Your task to perform on an android device: change the clock display to show seconds Image 0: 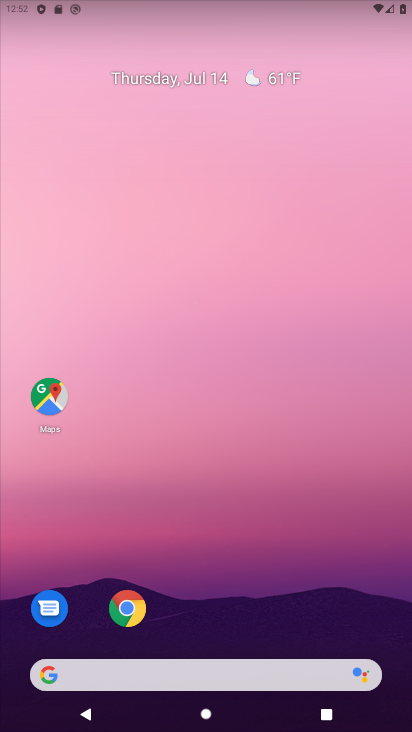
Step 0: drag from (327, 607) to (332, 140)
Your task to perform on an android device: change the clock display to show seconds Image 1: 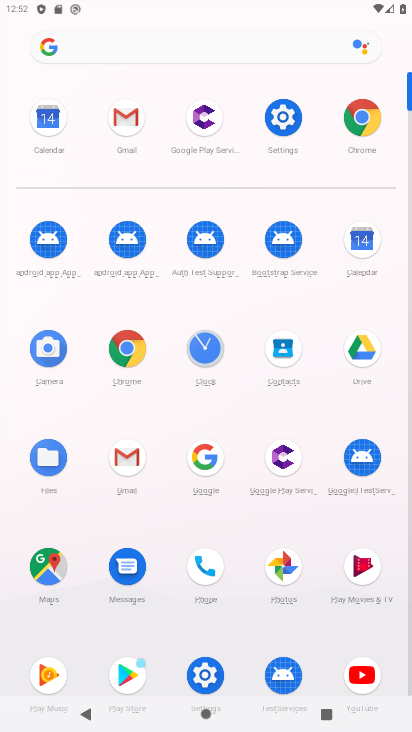
Step 1: click (204, 352)
Your task to perform on an android device: change the clock display to show seconds Image 2: 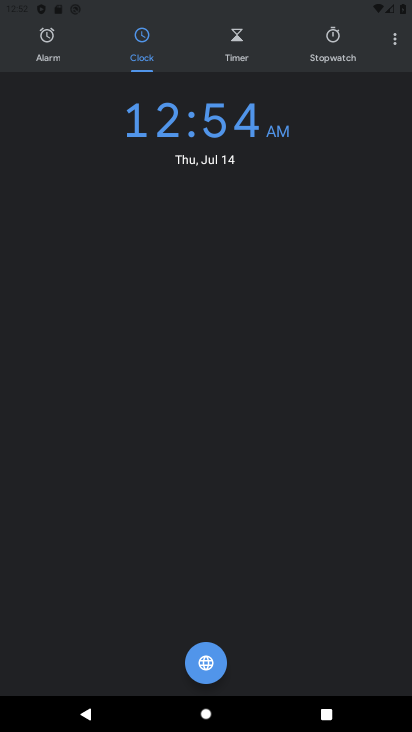
Step 2: click (395, 38)
Your task to perform on an android device: change the clock display to show seconds Image 3: 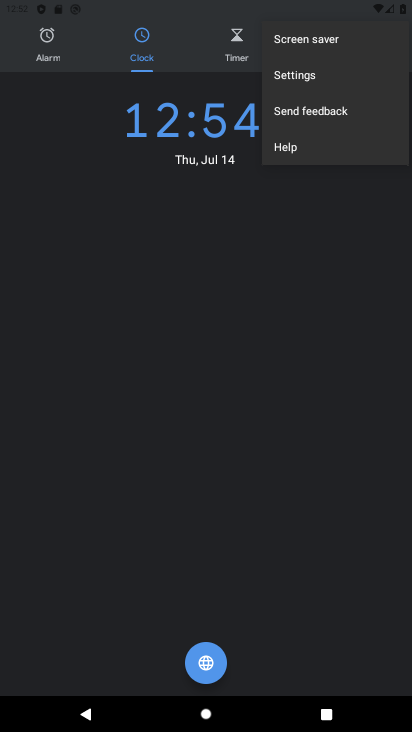
Step 3: click (308, 79)
Your task to perform on an android device: change the clock display to show seconds Image 4: 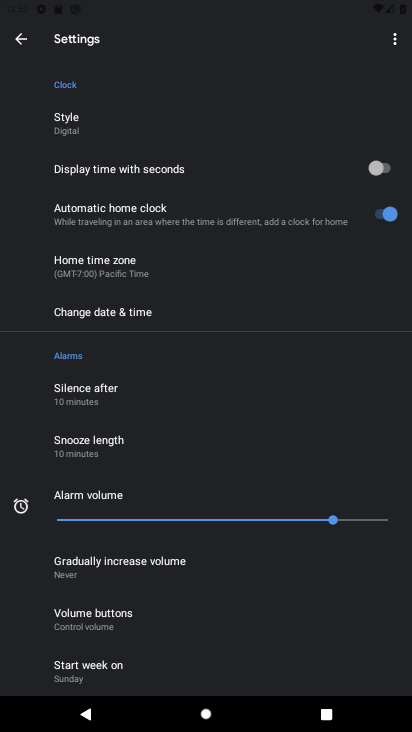
Step 4: drag from (308, 363) to (303, 292)
Your task to perform on an android device: change the clock display to show seconds Image 5: 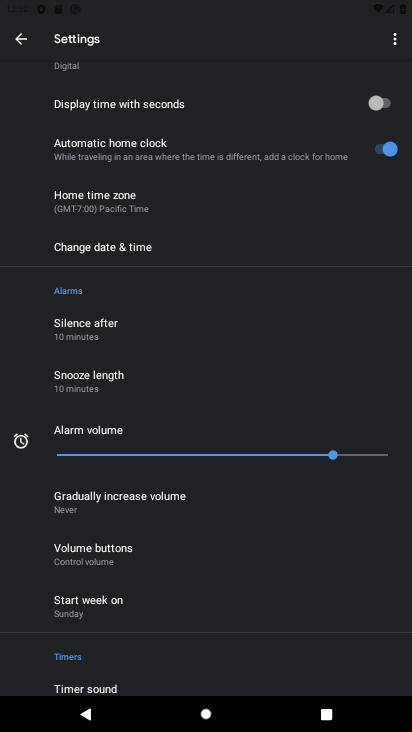
Step 5: drag from (308, 515) to (311, 431)
Your task to perform on an android device: change the clock display to show seconds Image 6: 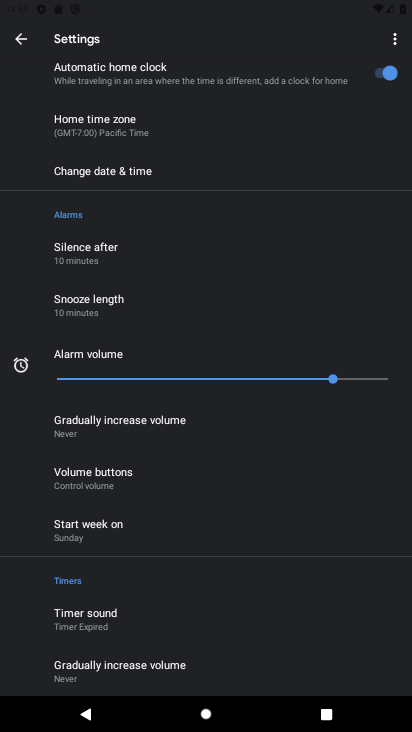
Step 6: drag from (310, 518) to (308, 442)
Your task to perform on an android device: change the clock display to show seconds Image 7: 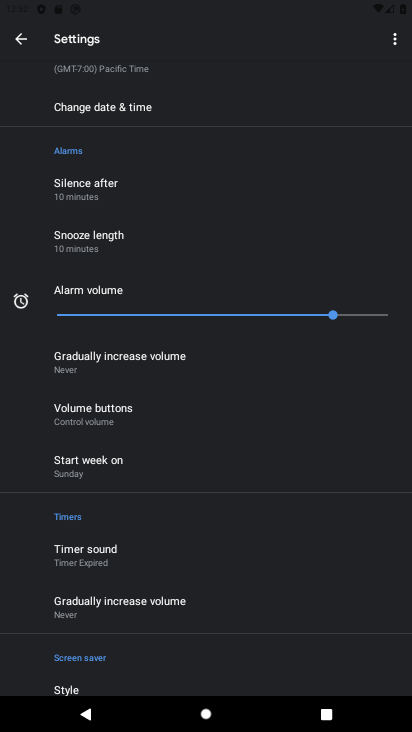
Step 7: drag from (318, 531) to (317, 447)
Your task to perform on an android device: change the clock display to show seconds Image 8: 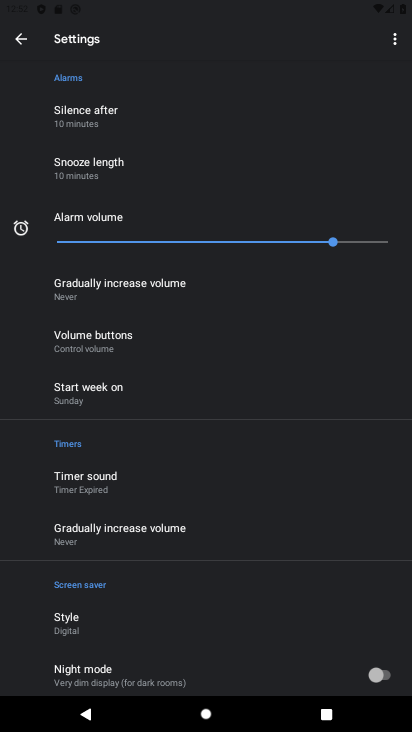
Step 8: drag from (315, 365) to (317, 473)
Your task to perform on an android device: change the clock display to show seconds Image 9: 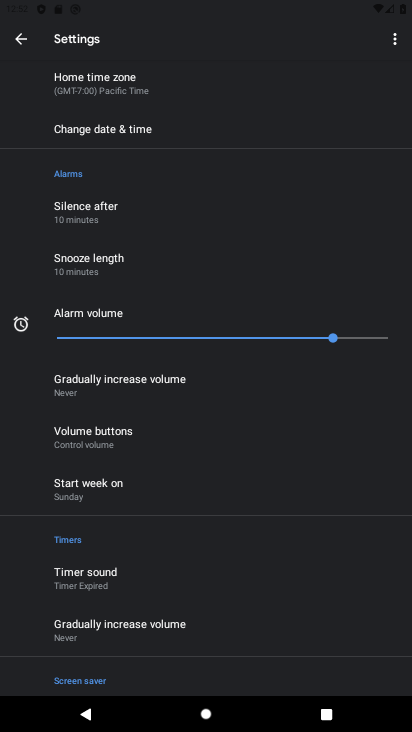
Step 9: drag from (318, 260) to (319, 396)
Your task to perform on an android device: change the clock display to show seconds Image 10: 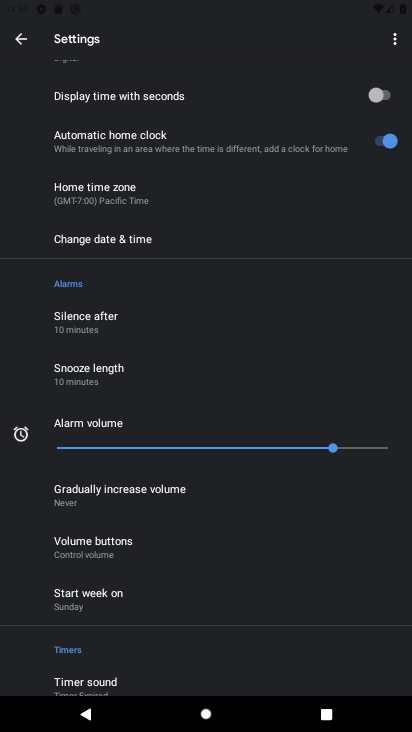
Step 10: drag from (319, 230) to (317, 366)
Your task to perform on an android device: change the clock display to show seconds Image 11: 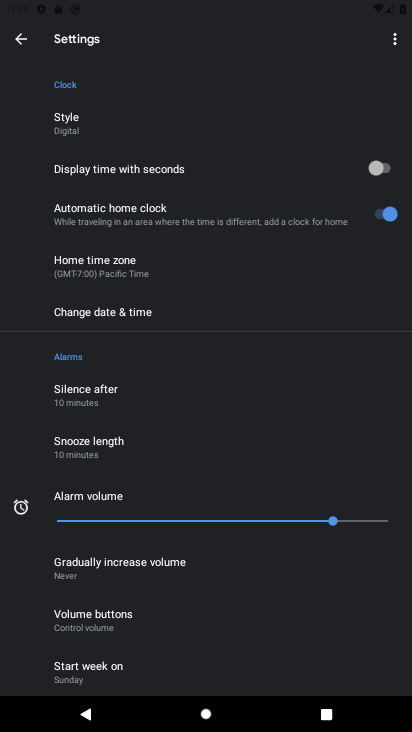
Step 11: click (368, 177)
Your task to perform on an android device: change the clock display to show seconds Image 12: 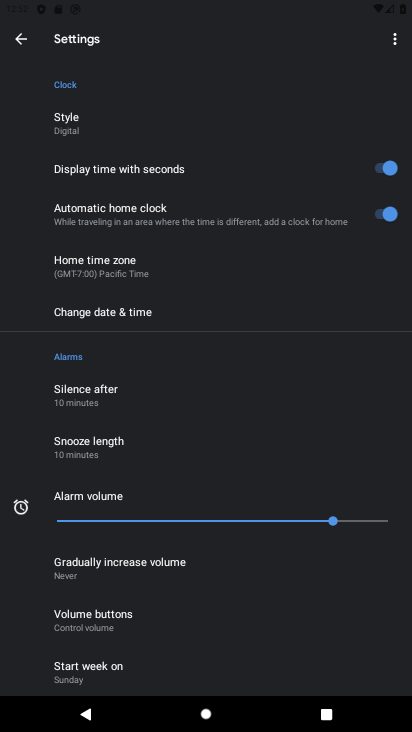
Step 12: task complete